Your task to perform on an android device: set the timer Image 0: 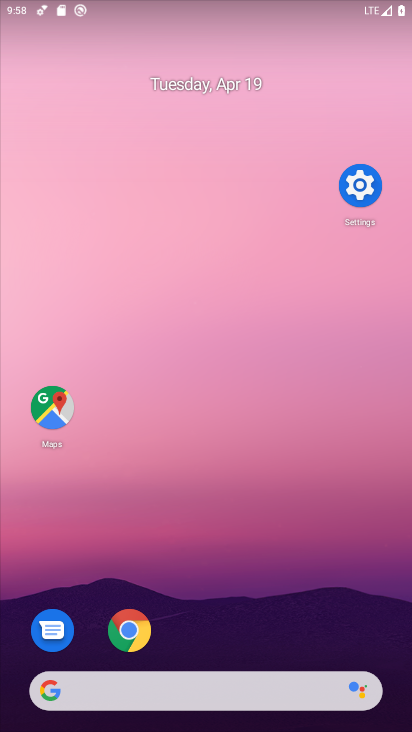
Step 0: drag from (284, 639) to (141, 145)
Your task to perform on an android device: set the timer Image 1: 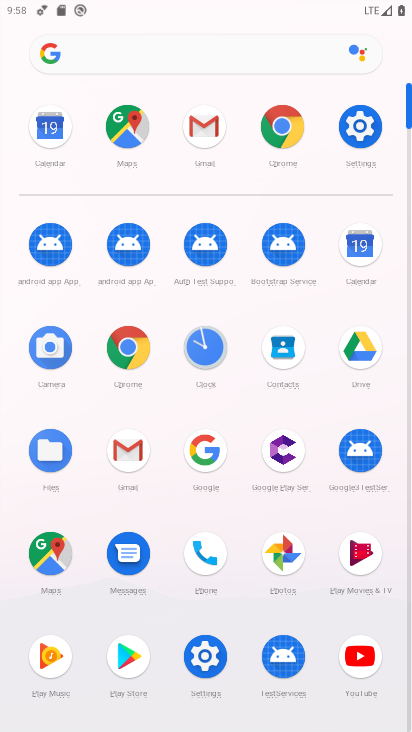
Step 1: click (197, 351)
Your task to perform on an android device: set the timer Image 2: 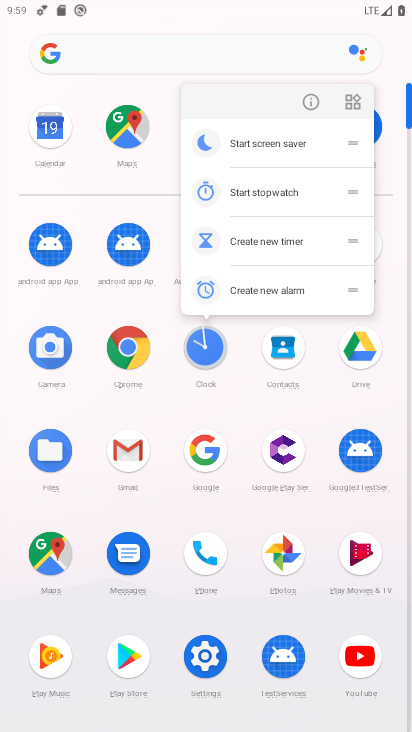
Step 2: click (218, 355)
Your task to perform on an android device: set the timer Image 3: 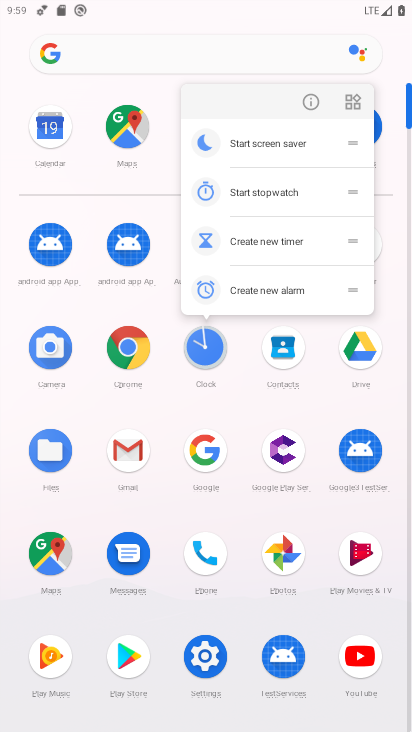
Step 3: click (213, 367)
Your task to perform on an android device: set the timer Image 4: 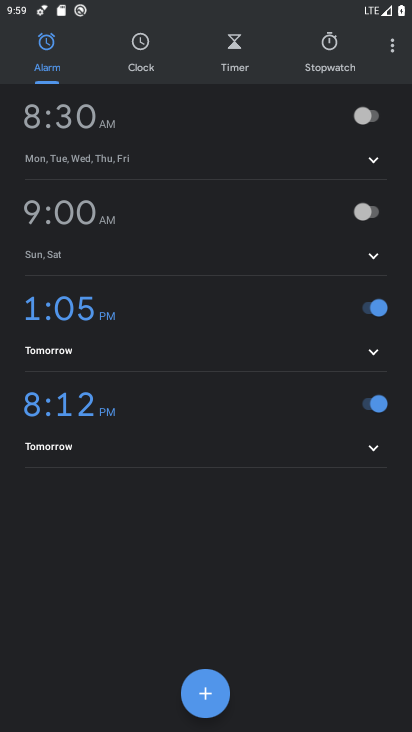
Step 4: click (242, 58)
Your task to perform on an android device: set the timer Image 5: 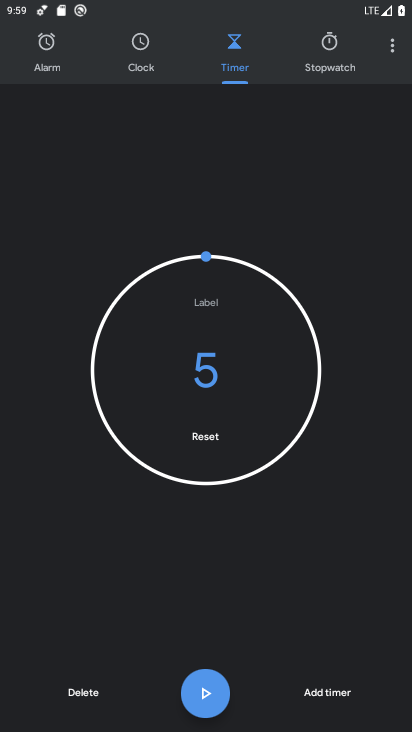
Step 5: click (215, 700)
Your task to perform on an android device: set the timer Image 6: 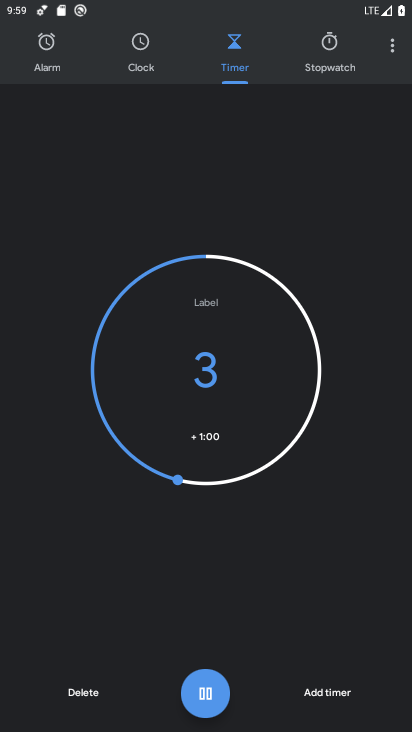
Step 6: task complete